Your task to perform on an android device: check data usage Image 0: 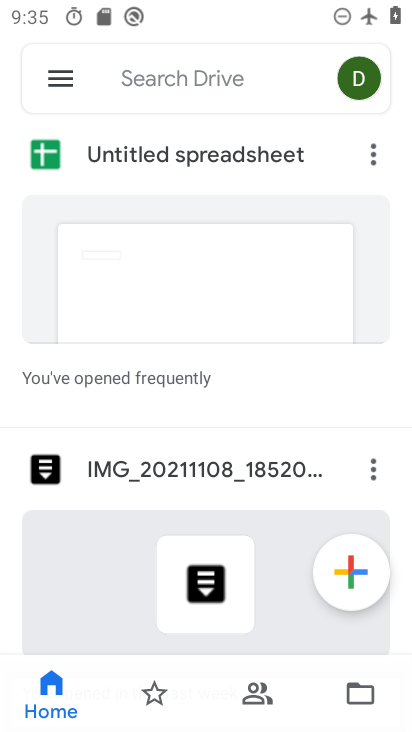
Step 0: press home button
Your task to perform on an android device: check data usage Image 1: 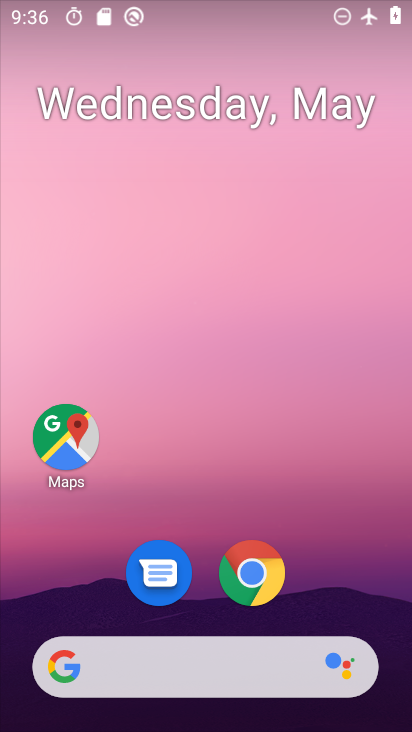
Step 1: drag from (400, 618) to (380, 248)
Your task to perform on an android device: check data usage Image 2: 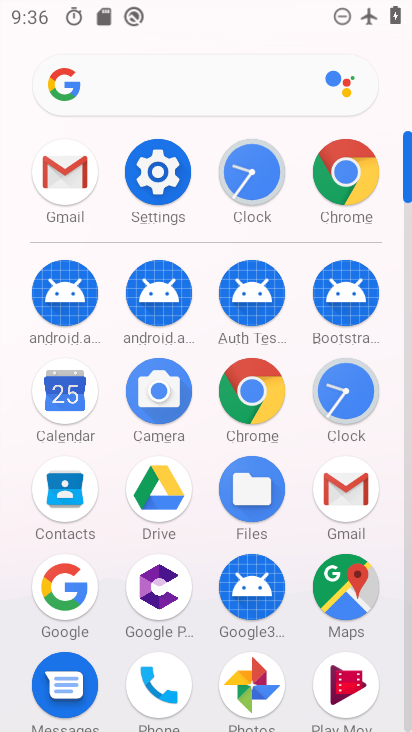
Step 2: click (157, 172)
Your task to perform on an android device: check data usage Image 3: 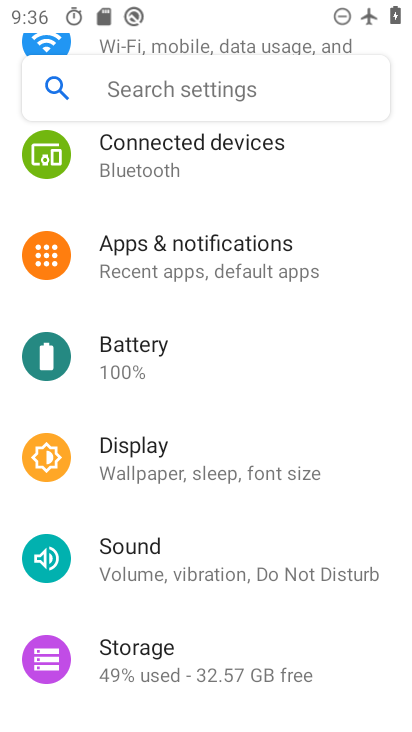
Step 3: drag from (301, 153) to (316, 518)
Your task to perform on an android device: check data usage Image 4: 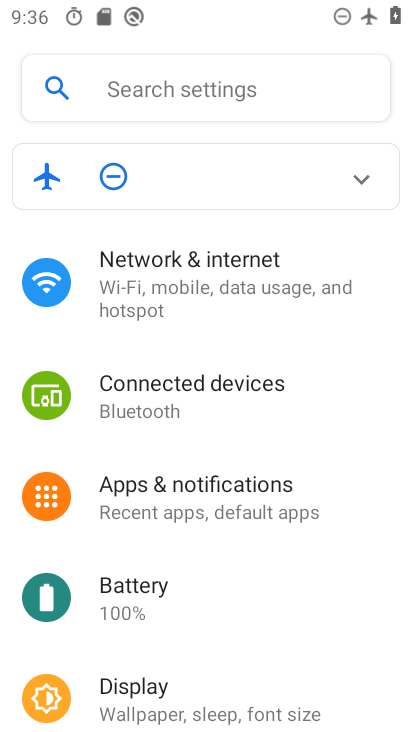
Step 4: click (203, 278)
Your task to perform on an android device: check data usage Image 5: 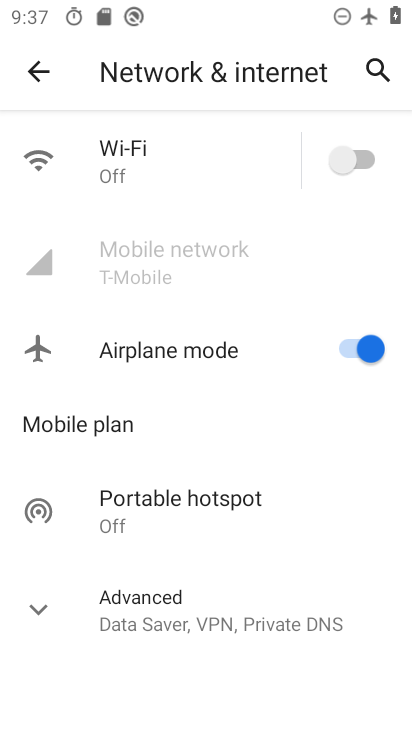
Step 5: click (47, 61)
Your task to perform on an android device: check data usage Image 6: 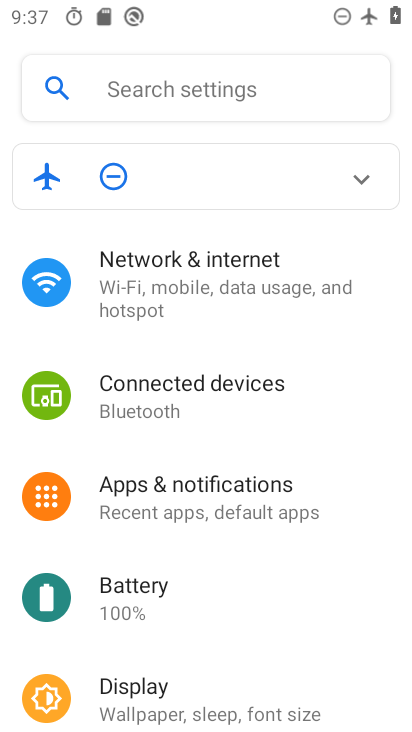
Step 6: click (171, 273)
Your task to perform on an android device: check data usage Image 7: 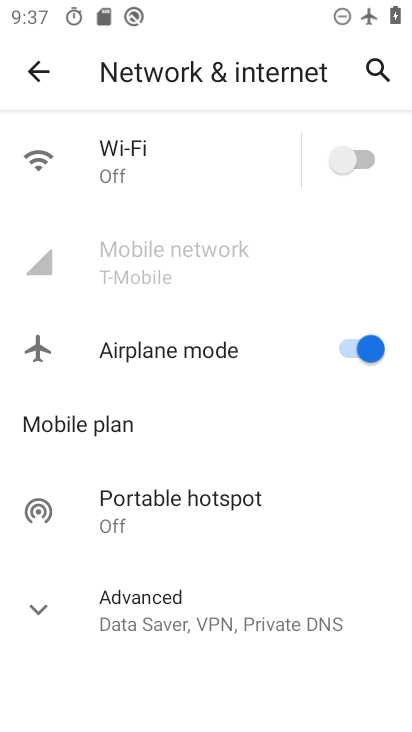
Step 7: task complete